Your task to perform on an android device: read, delete, or share a saved page in the chrome app Image 0: 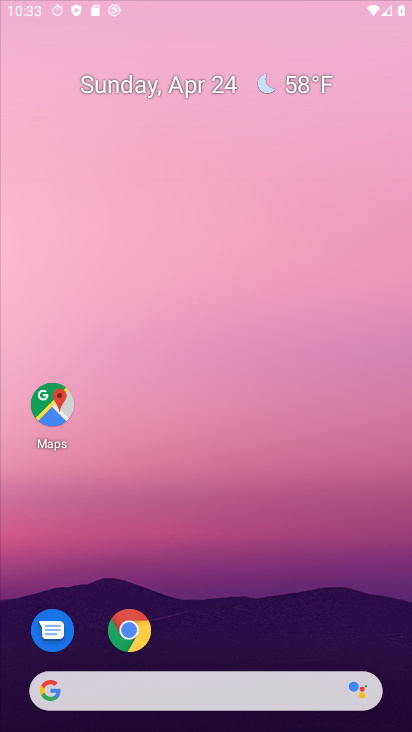
Step 0: drag from (232, 633) to (259, 311)
Your task to perform on an android device: read, delete, or share a saved page in the chrome app Image 1: 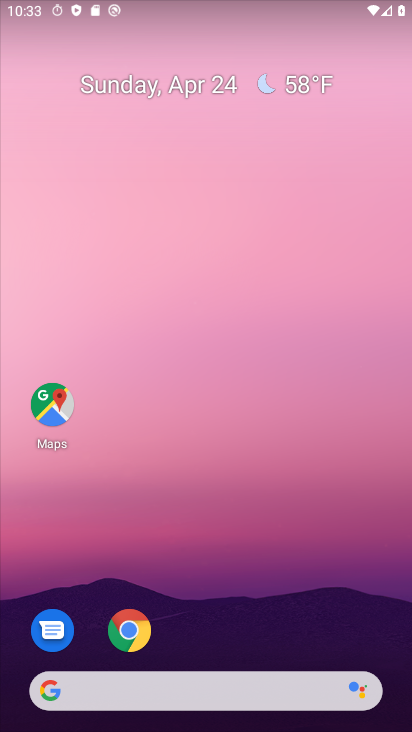
Step 1: drag from (256, 613) to (257, 181)
Your task to perform on an android device: read, delete, or share a saved page in the chrome app Image 2: 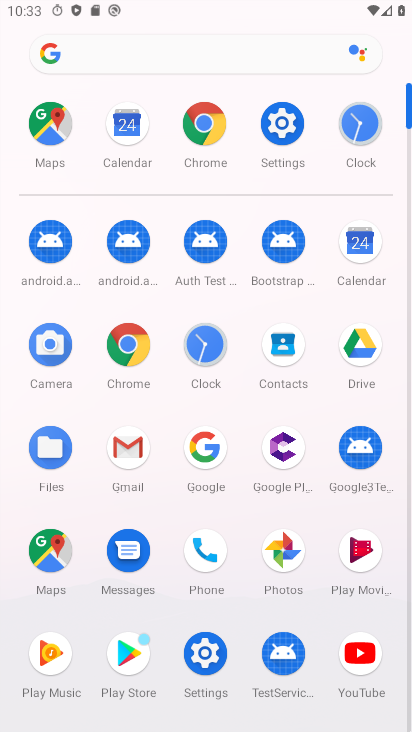
Step 2: click (202, 128)
Your task to perform on an android device: read, delete, or share a saved page in the chrome app Image 3: 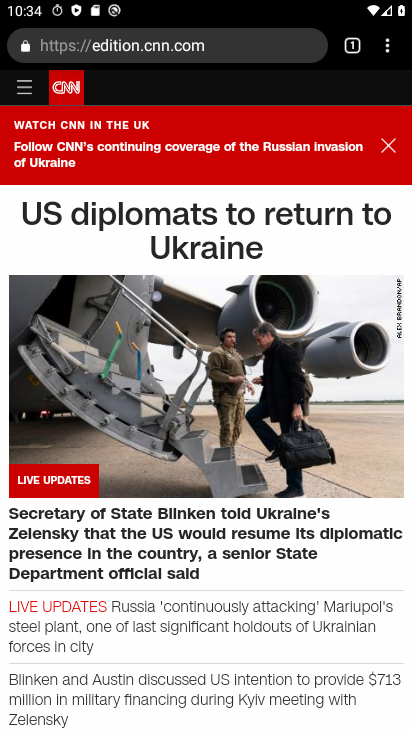
Step 3: click (406, 62)
Your task to perform on an android device: read, delete, or share a saved page in the chrome app Image 4: 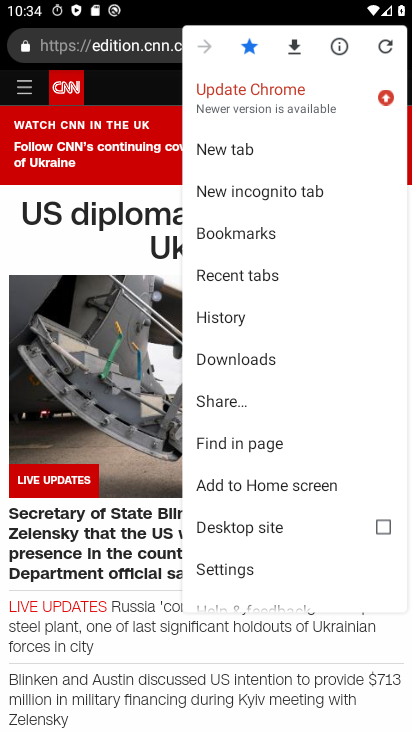
Step 4: click (259, 359)
Your task to perform on an android device: read, delete, or share a saved page in the chrome app Image 5: 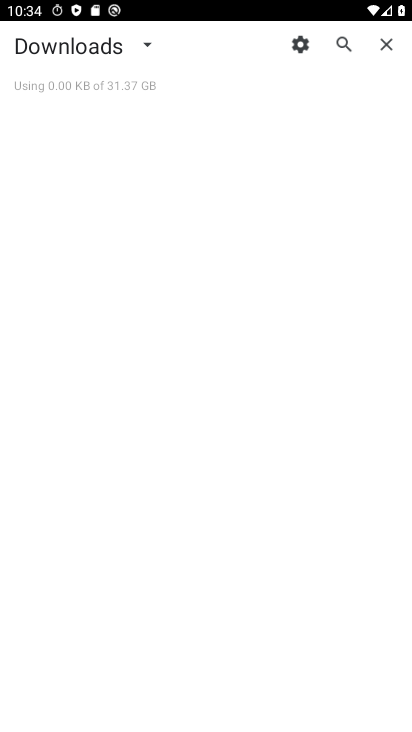
Step 5: click (142, 54)
Your task to perform on an android device: read, delete, or share a saved page in the chrome app Image 6: 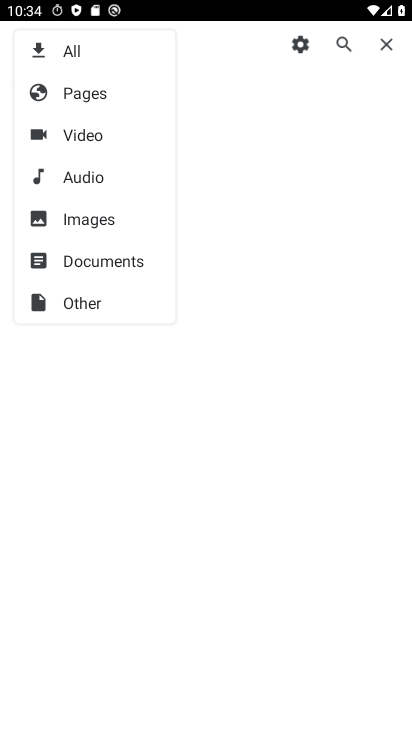
Step 6: click (108, 217)
Your task to perform on an android device: read, delete, or share a saved page in the chrome app Image 7: 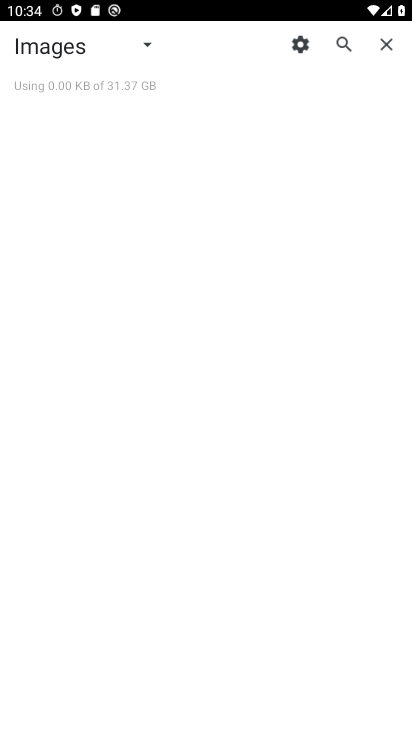
Step 7: click (130, 58)
Your task to perform on an android device: read, delete, or share a saved page in the chrome app Image 8: 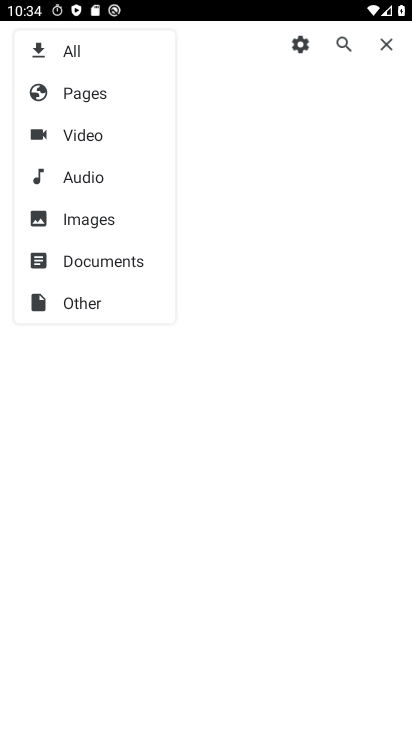
Step 8: click (94, 78)
Your task to perform on an android device: read, delete, or share a saved page in the chrome app Image 9: 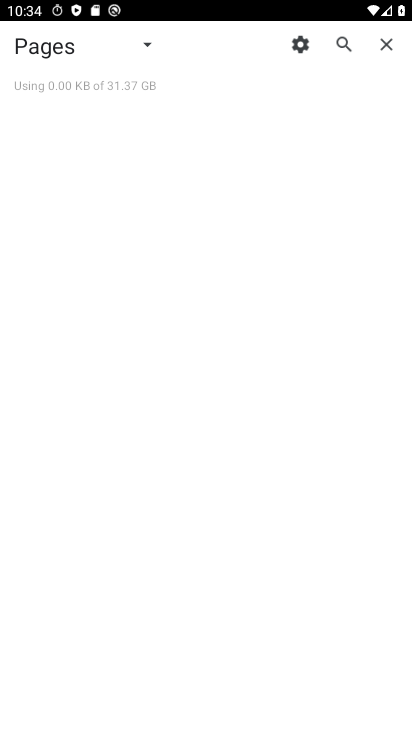
Step 9: task complete